Your task to perform on an android device: stop showing notifications on the lock screen Image 0: 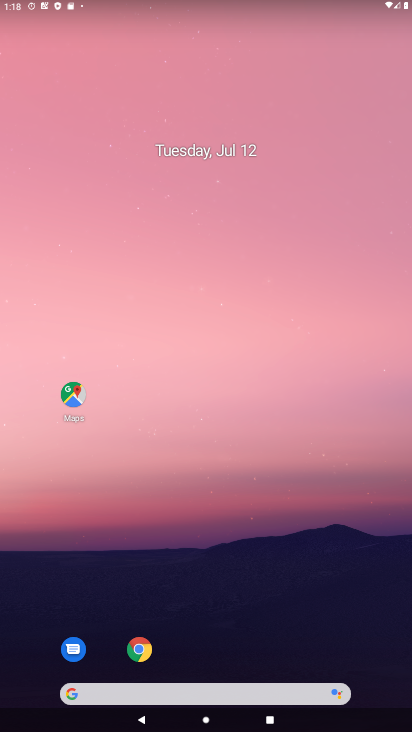
Step 0: drag from (371, 683) to (189, 110)
Your task to perform on an android device: stop showing notifications on the lock screen Image 1: 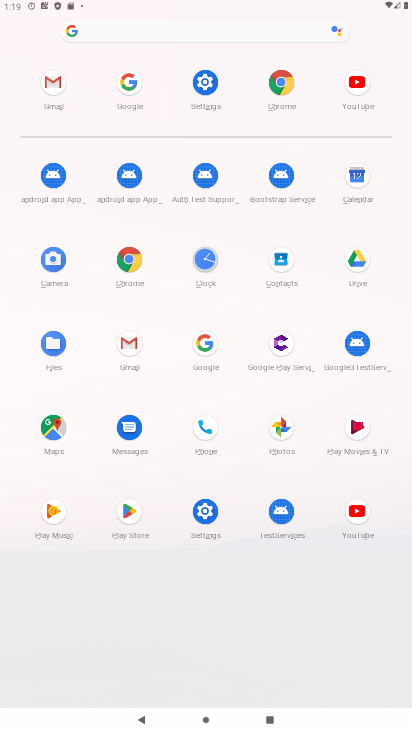
Step 1: click (204, 81)
Your task to perform on an android device: stop showing notifications on the lock screen Image 2: 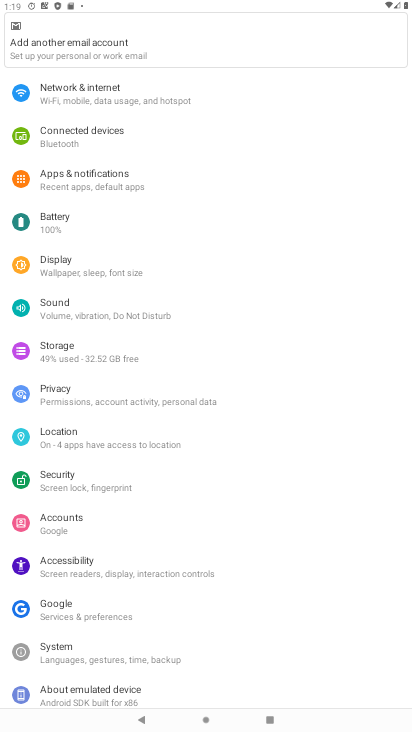
Step 2: click (112, 186)
Your task to perform on an android device: stop showing notifications on the lock screen Image 3: 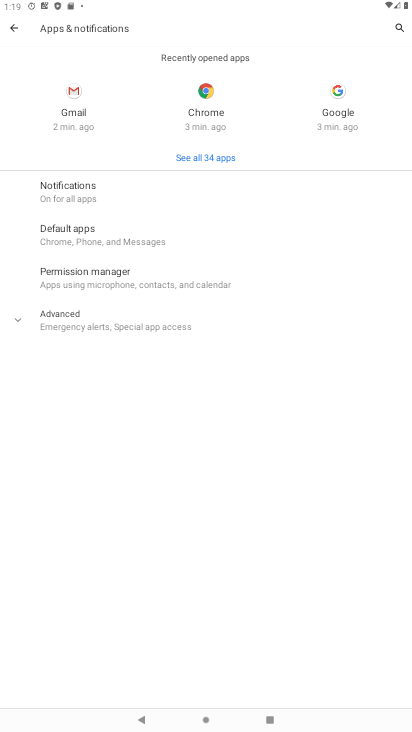
Step 3: click (110, 187)
Your task to perform on an android device: stop showing notifications on the lock screen Image 4: 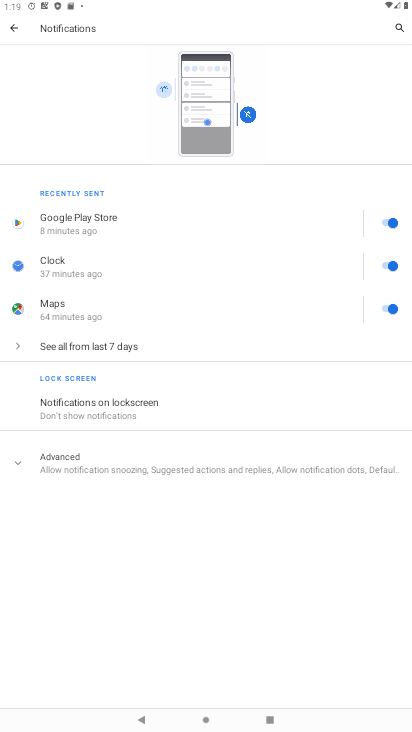
Step 4: drag from (99, 293) to (5, 16)
Your task to perform on an android device: stop showing notifications on the lock screen Image 5: 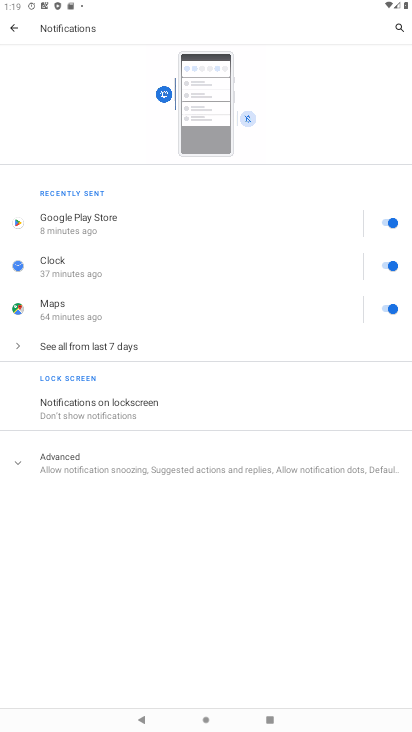
Step 5: click (102, 422)
Your task to perform on an android device: stop showing notifications on the lock screen Image 6: 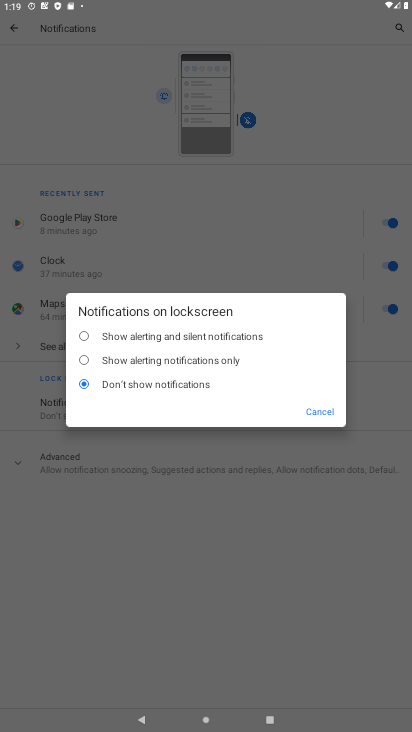
Step 6: task complete